Your task to perform on an android device: turn on priority inbox in the gmail app Image 0: 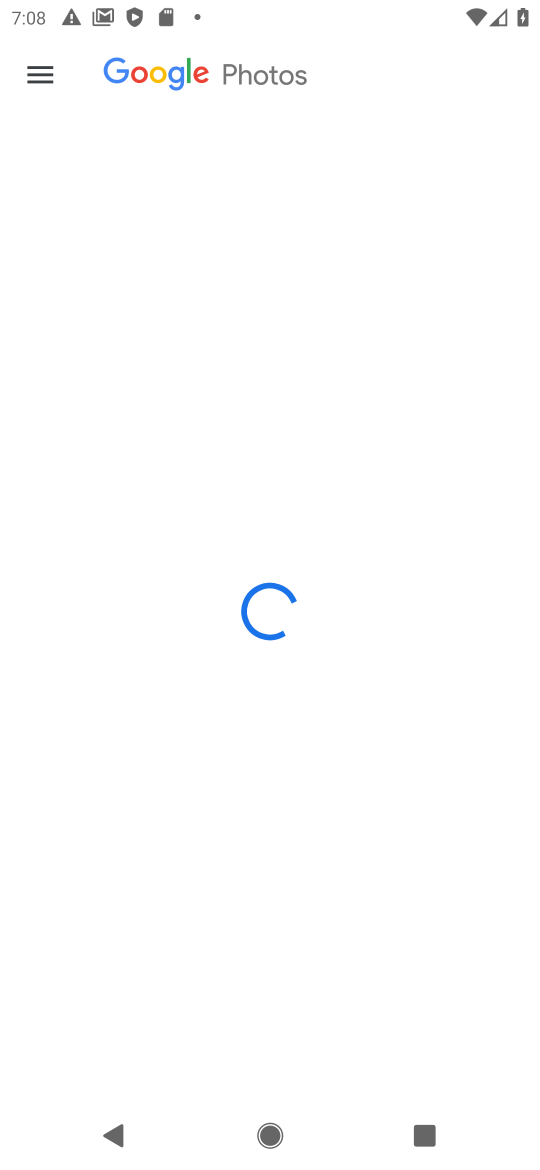
Step 0: press home button
Your task to perform on an android device: turn on priority inbox in the gmail app Image 1: 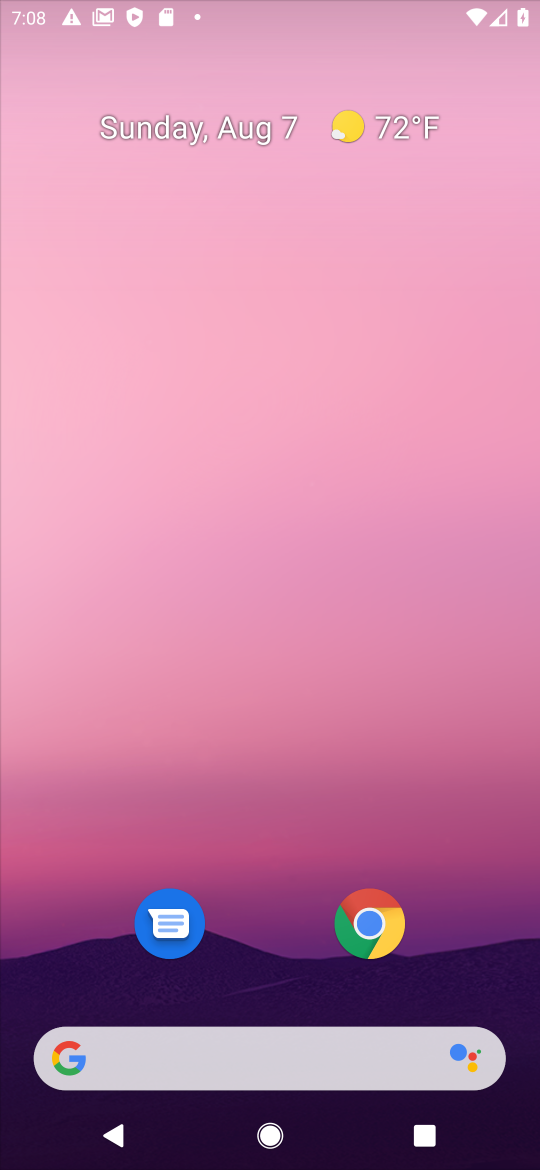
Step 1: drag from (488, 974) to (369, 38)
Your task to perform on an android device: turn on priority inbox in the gmail app Image 2: 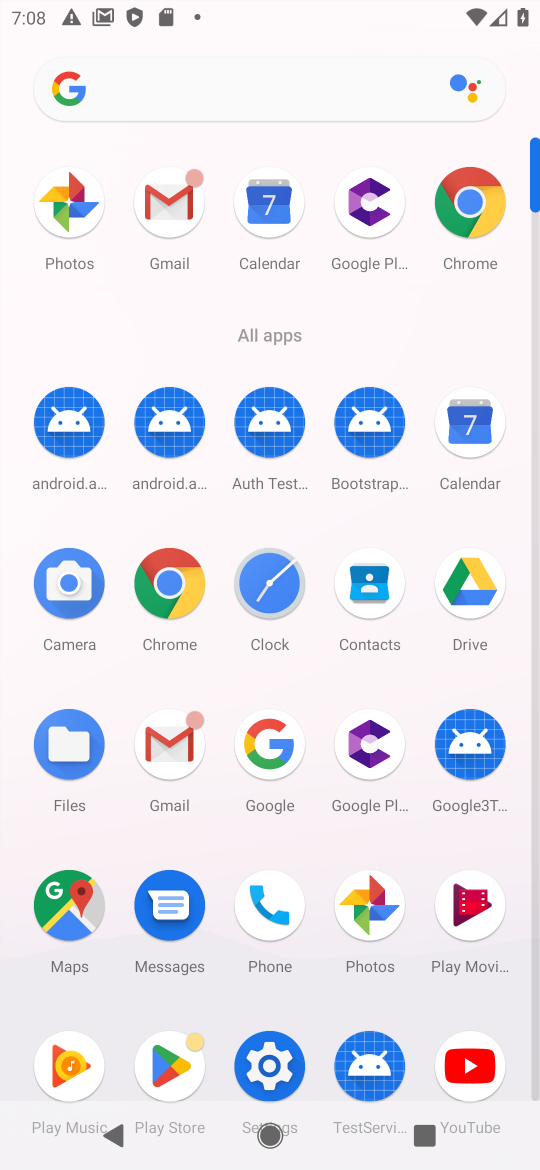
Step 2: click (166, 764)
Your task to perform on an android device: turn on priority inbox in the gmail app Image 3: 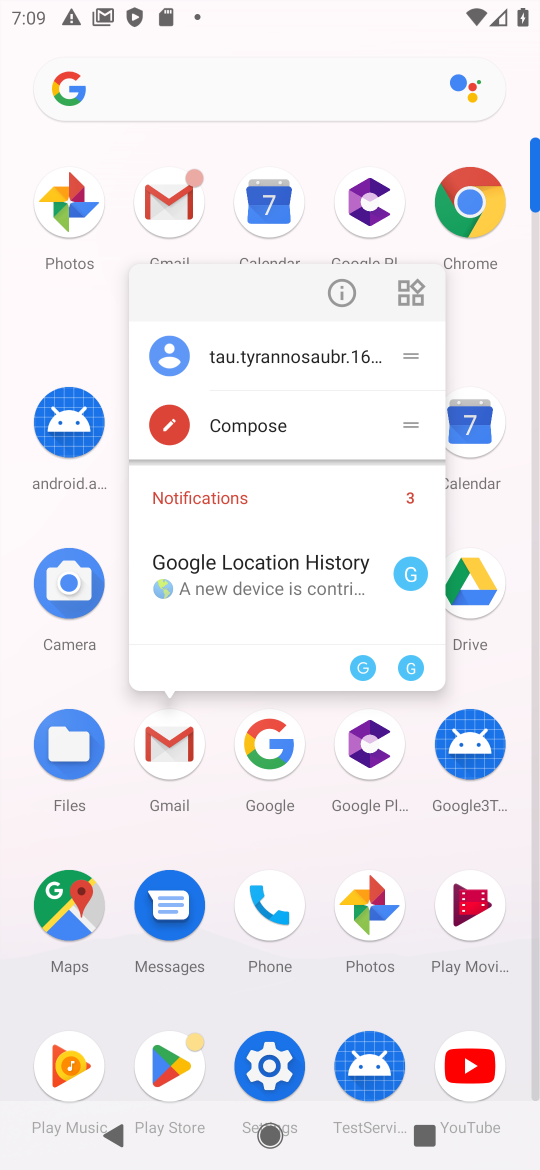
Step 3: click (166, 764)
Your task to perform on an android device: turn on priority inbox in the gmail app Image 4: 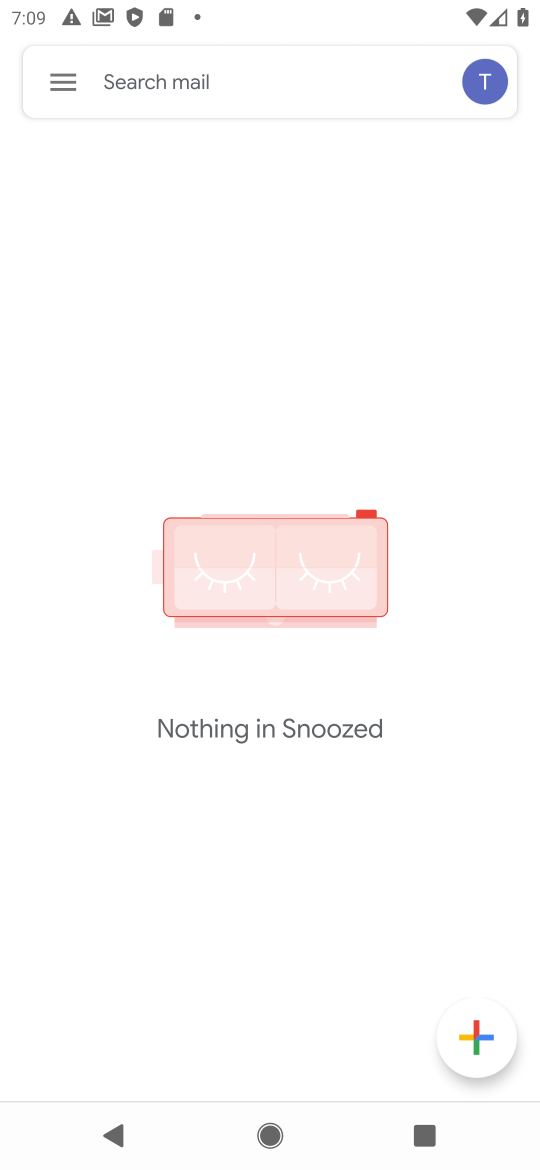
Step 4: click (64, 99)
Your task to perform on an android device: turn on priority inbox in the gmail app Image 5: 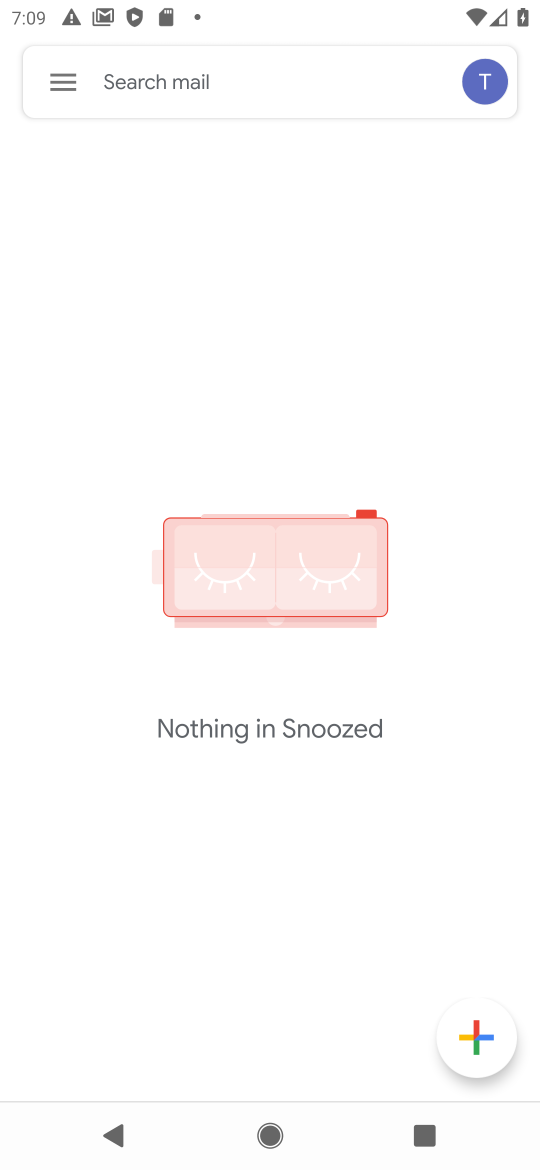
Step 5: click (64, 99)
Your task to perform on an android device: turn on priority inbox in the gmail app Image 6: 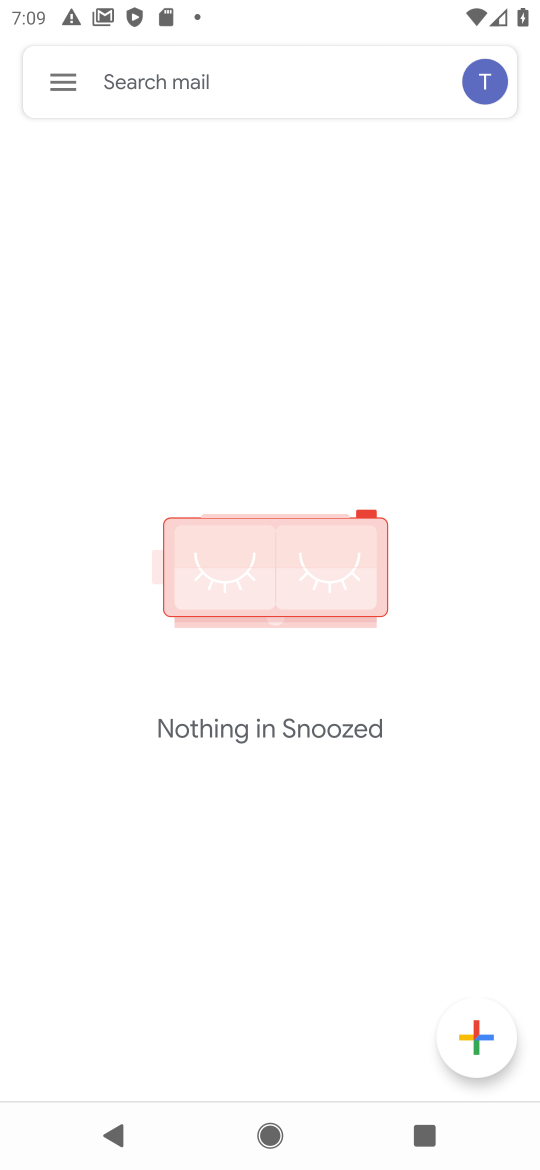
Step 6: click (65, 71)
Your task to perform on an android device: turn on priority inbox in the gmail app Image 7: 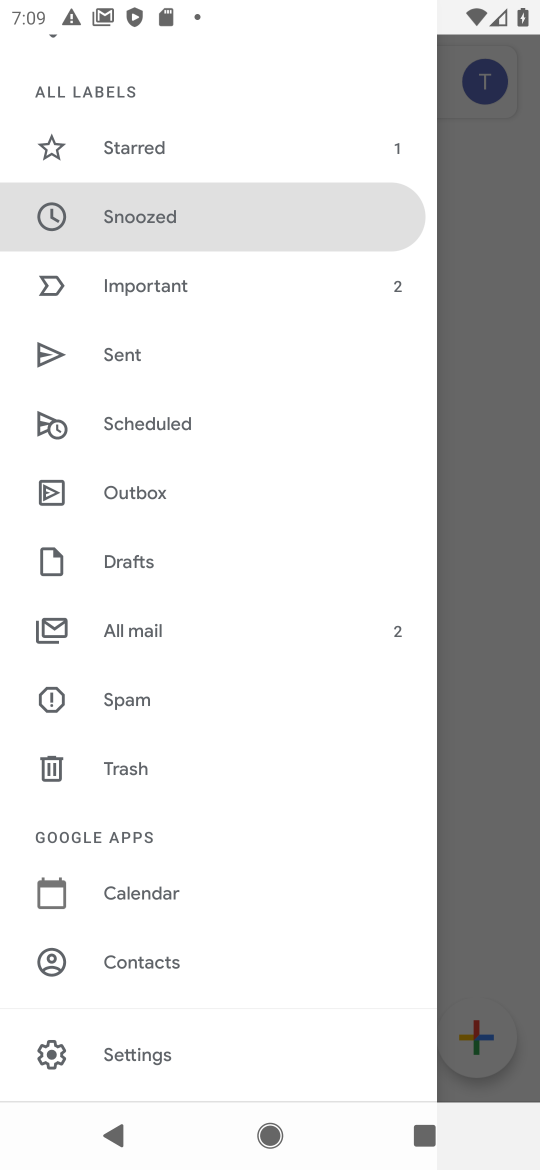
Step 7: click (141, 1046)
Your task to perform on an android device: turn on priority inbox in the gmail app Image 8: 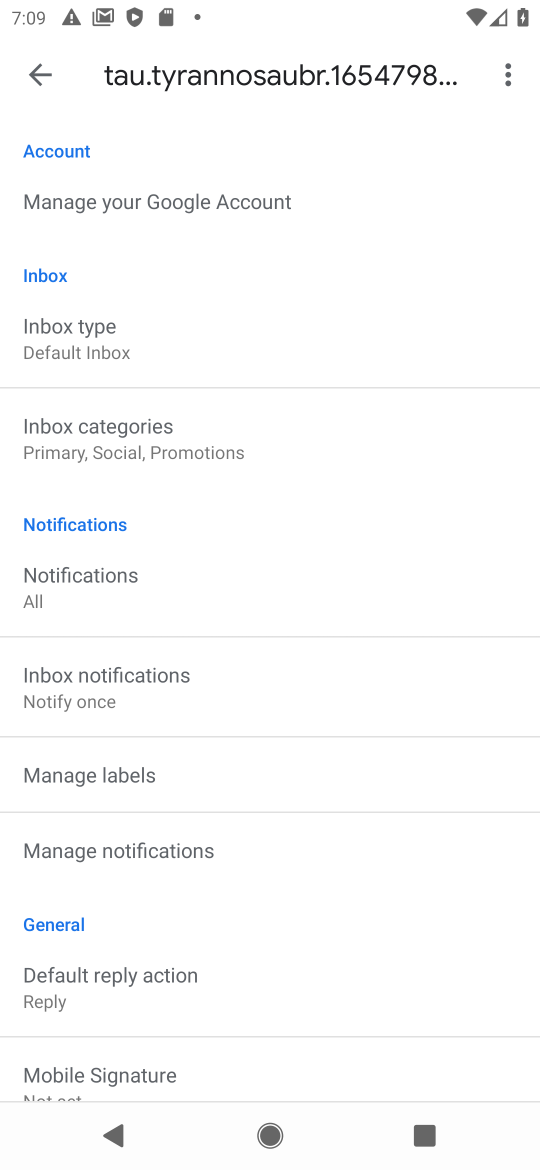
Step 8: click (94, 341)
Your task to perform on an android device: turn on priority inbox in the gmail app Image 9: 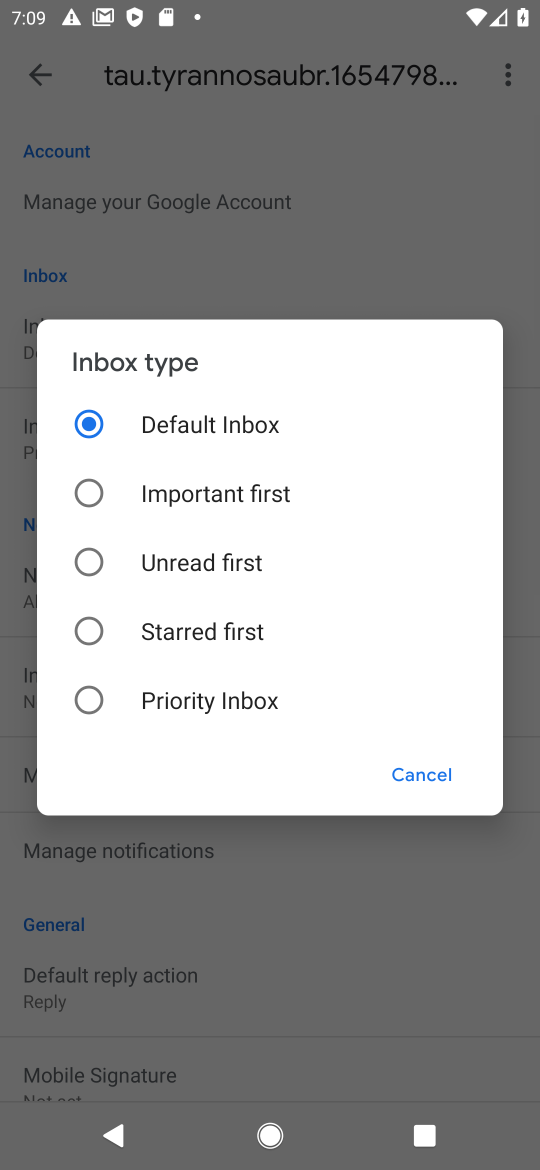
Step 9: click (151, 698)
Your task to perform on an android device: turn on priority inbox in the gmail app Image 10: 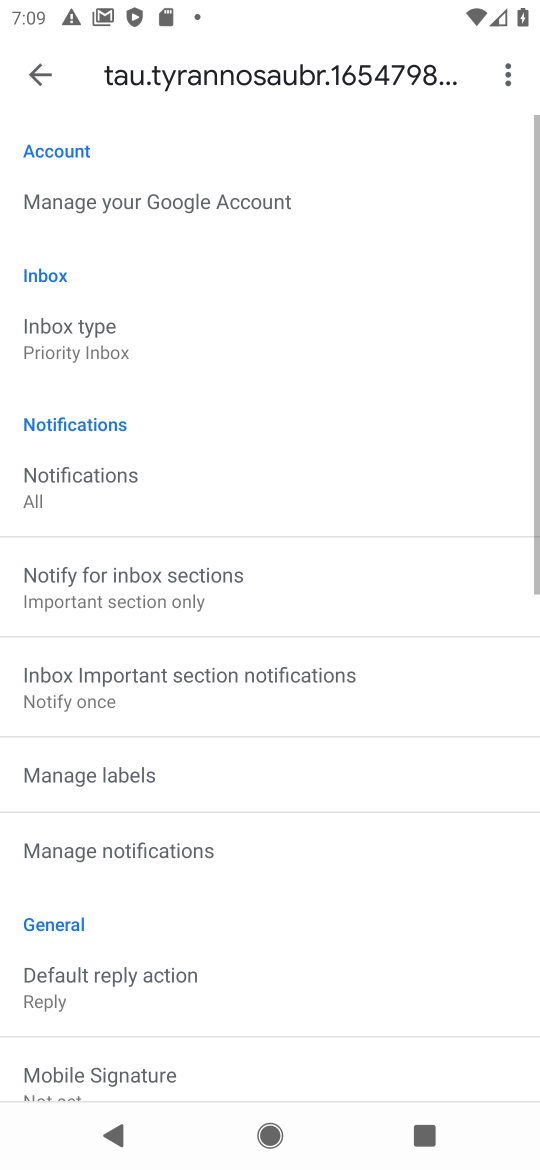
Step 10: task complete